Your task to perform on an android device: Open settings Image 0: 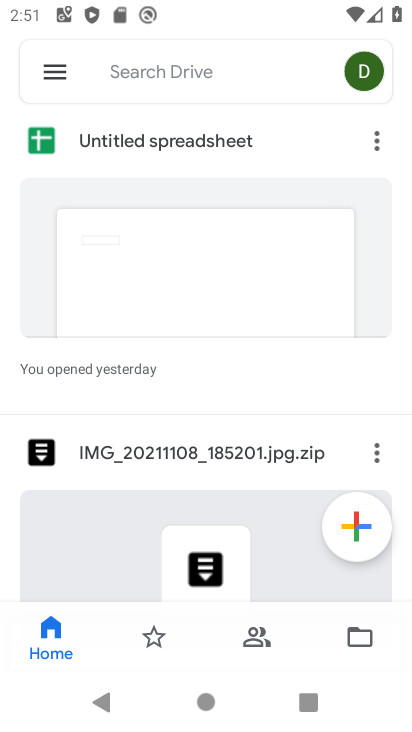
Step 0: press back button
Your task to perform on an android device: Open settings Image 1: 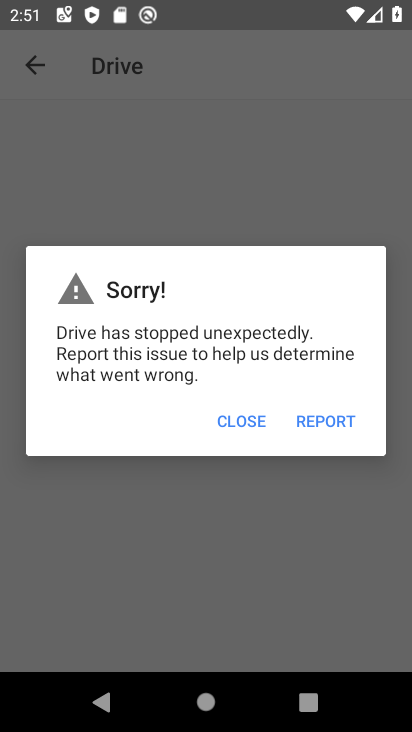
Step 1: press home button
Your task to perform on an android device: Open settings Image 2: 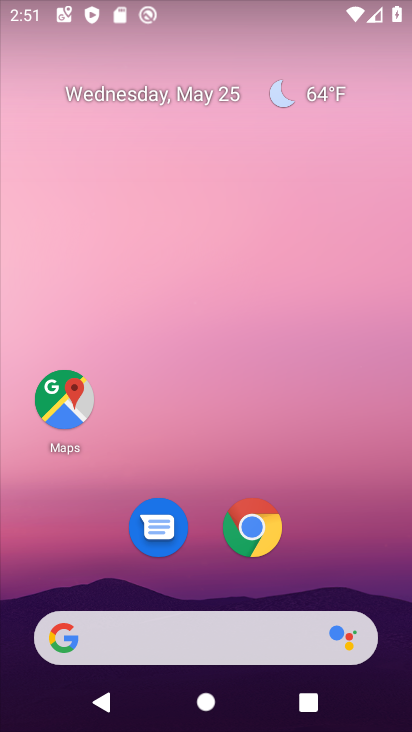
Step 2: drag from (184, 586) to (261, 34)
Your task to perform on an android device: Open settings Image 3: 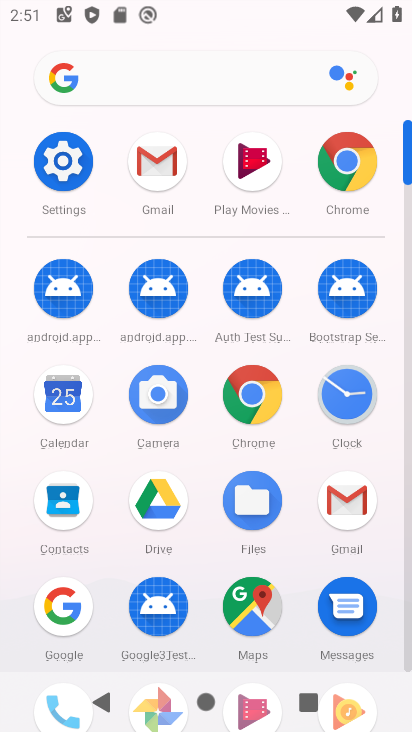
Step 3: click (71, 148)
Your task to perform on an android device: Open settings Image 4: 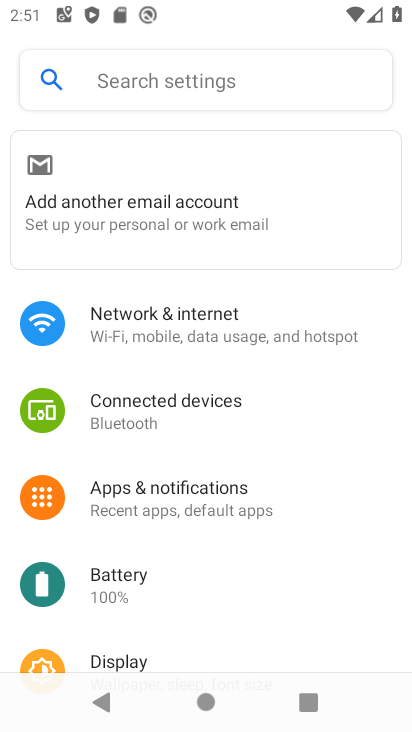
Step 4: task complete